Your task to perform on an android device: Play the last video I watched on Youtube Image 0: 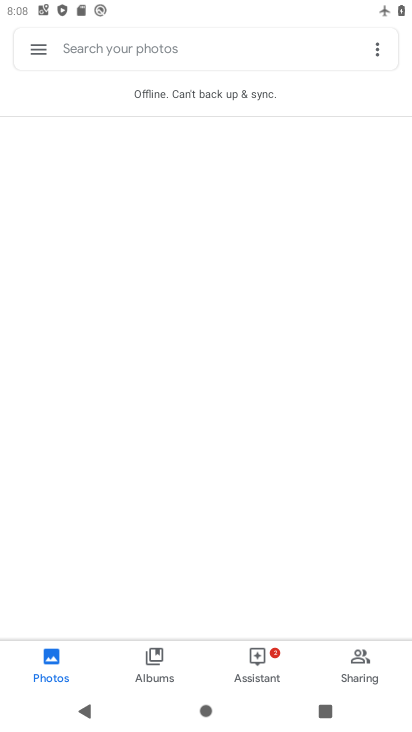
Step 0: press home button
Your task to perform on an android device: Play the last video I watched on Youtube Image 1: 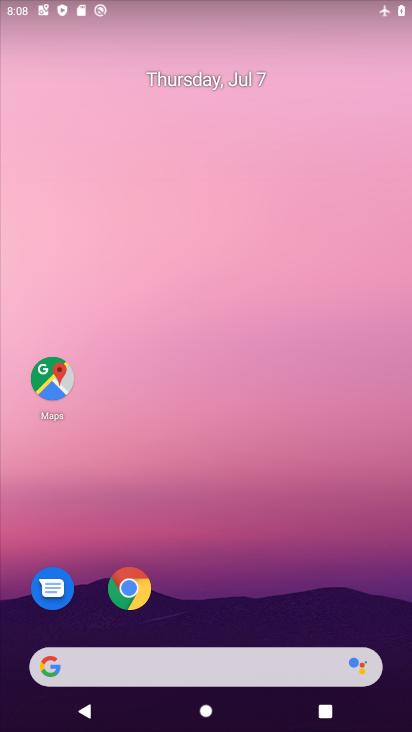
Step 1: drag from (303, 606) to (263, 117)
Your task to perform on an android device: Play the last video I watched on Youtube Image 2: 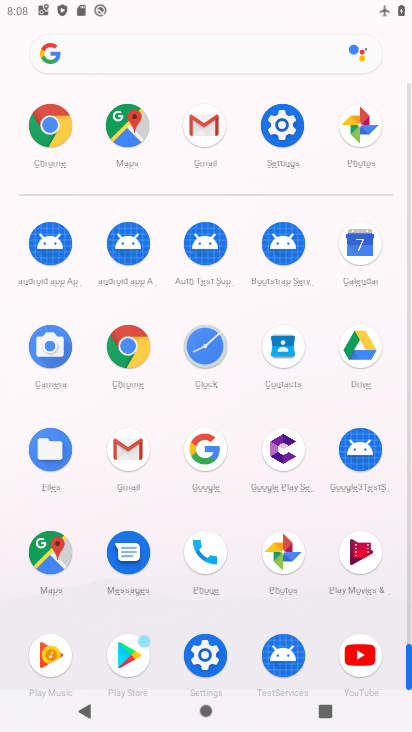
Step 2: click (362, 644)
Your task to perform on an android device: Play the last video I watched on Youtube Image 3: 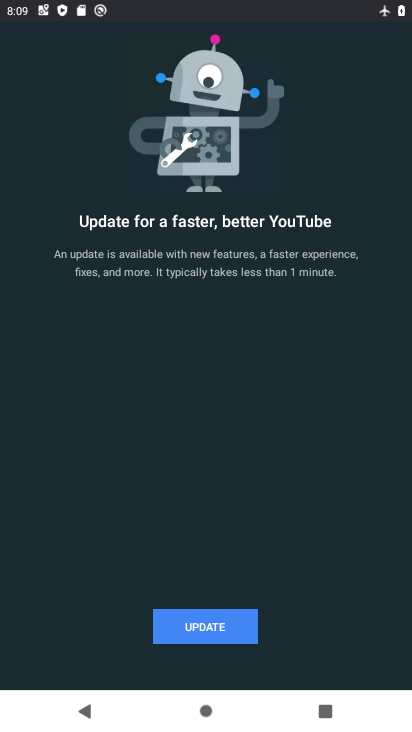
Step 3: task complete